Your task to perform on an android device: Find coffee shops on Maps Image 0: 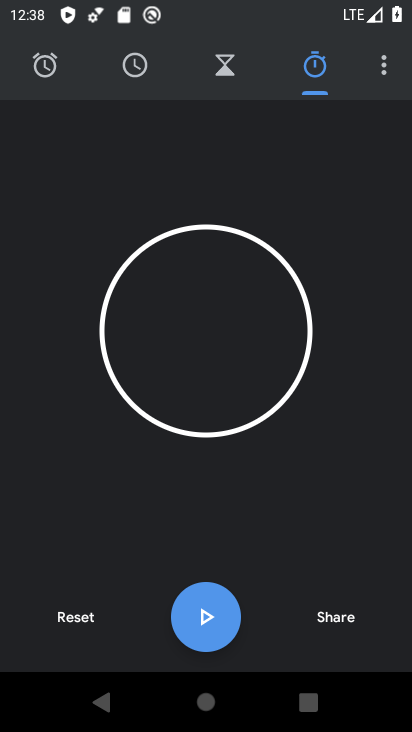
Step 0: press home button
Your task to perform on an android device: Find coffee shops on Maps Image 1: 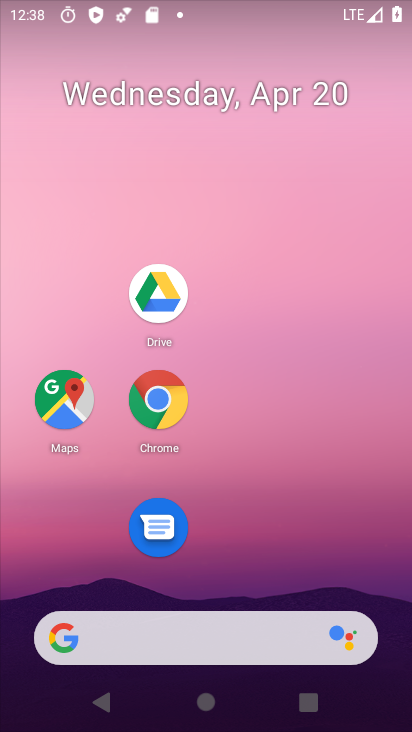
Step 1: drag from (250, 666) to (278, 132)
Your task to perform on an android device: Find coffee shops on Maps Image 2: 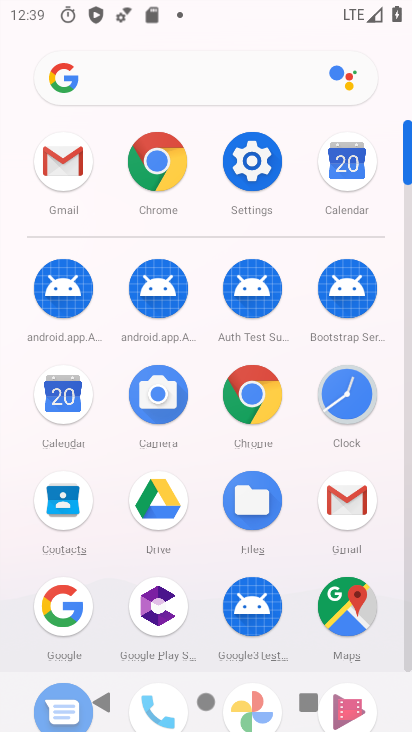
Step 2: click (354, 618)
Your task to perform on an android device: Find coffee shops on Maps Image 3: 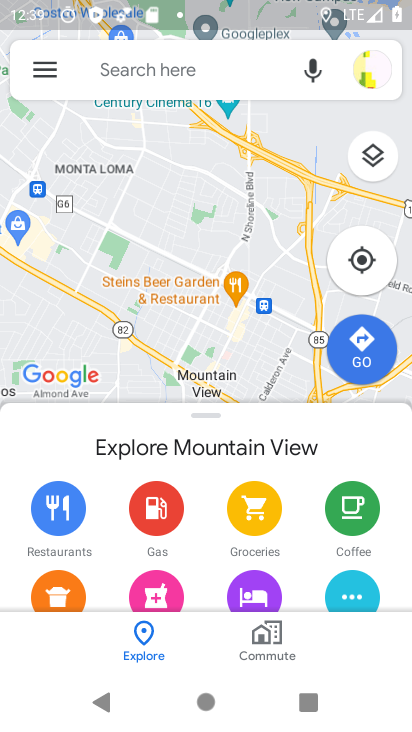
Step 3: click (153, 70)
Your task to perform on an android device: Find coffee shops on Maps Image 4: 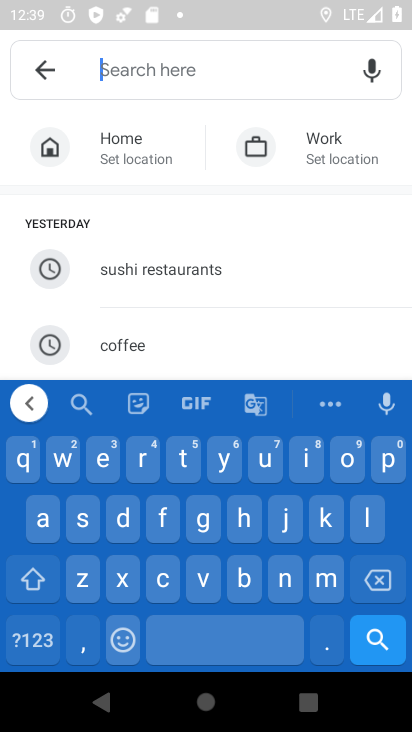
Step 4: click (115, 346)
Your task to perform on an android device: Find coffee shops on Maps Image 5: 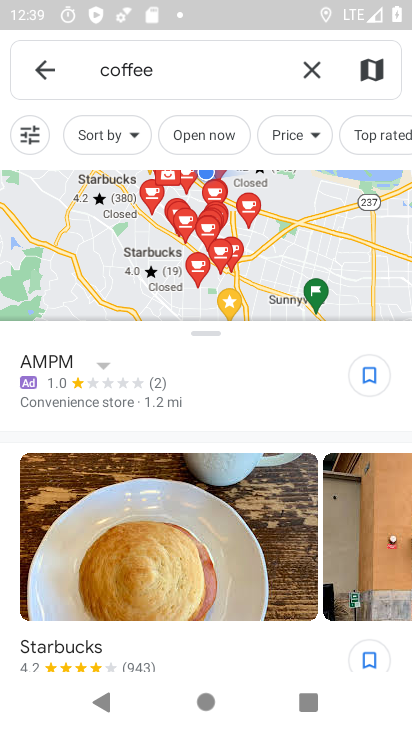
Step 5: click (205, 194)
Your task to perform on an android device: Find coffee shops on Maps Image 6: 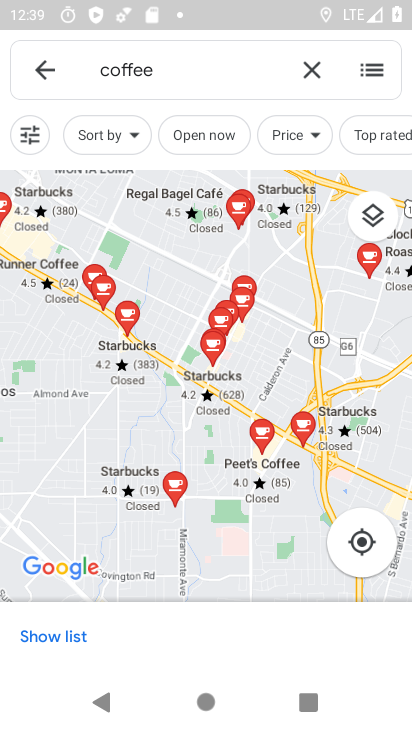
Step 6: task complete